Your task to perform on an android device: open chrome and create a bookmark for the current page Image 0: 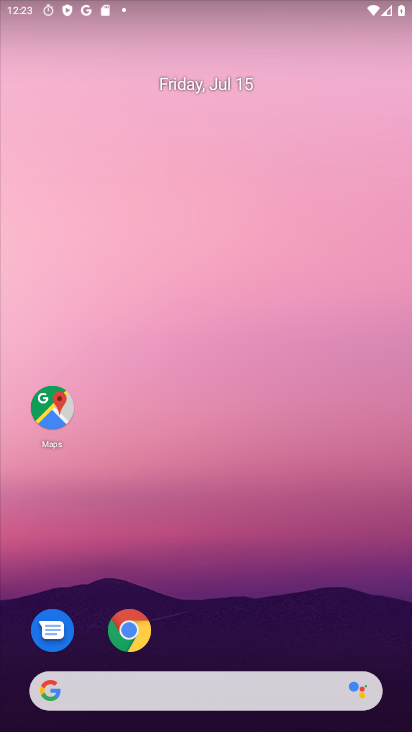
Step 0: drag from (188, 607) to (267, 40)
Your task to perform on an android device: open chrome and create a bookmark for the current page Image 1: 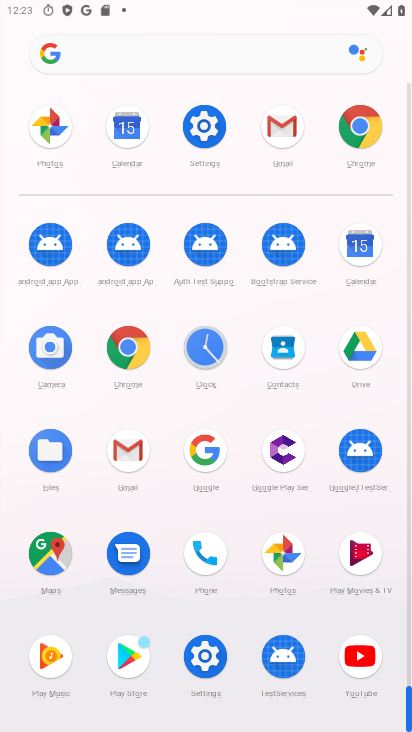
Step 1: click (131, 345)
Your task to perform on an android device: open chrome and create a bookmark for the current page Image 2: 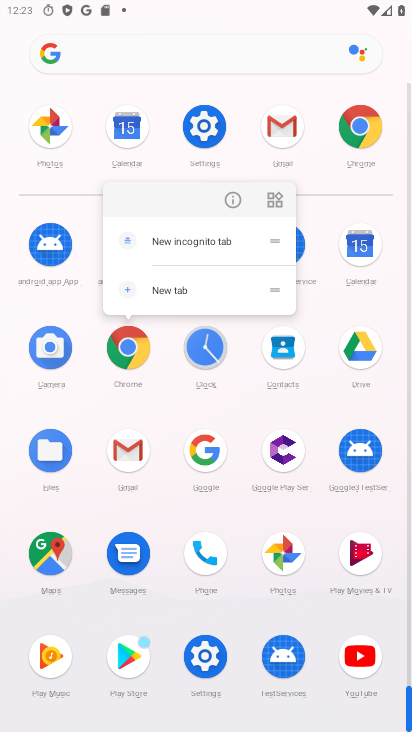
Step 2: click (229, 194)
Your task to perform on an android device: open chrome and create a bookmark for the current page Image 3: 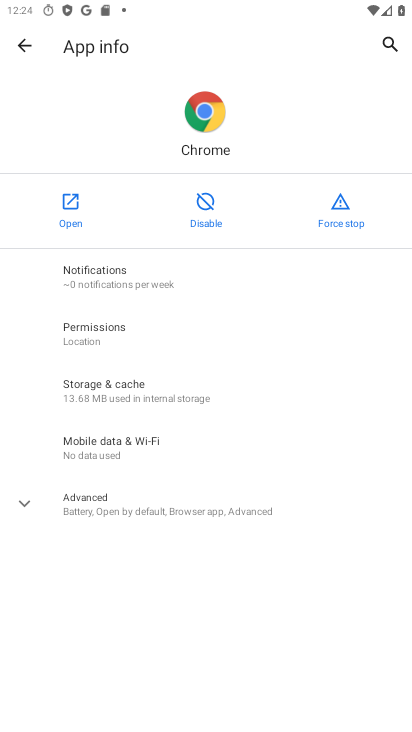
Step 3: click (77, 198)
Your task to perform on an android device: open chrome and create a bookmark for the current page Image 4: 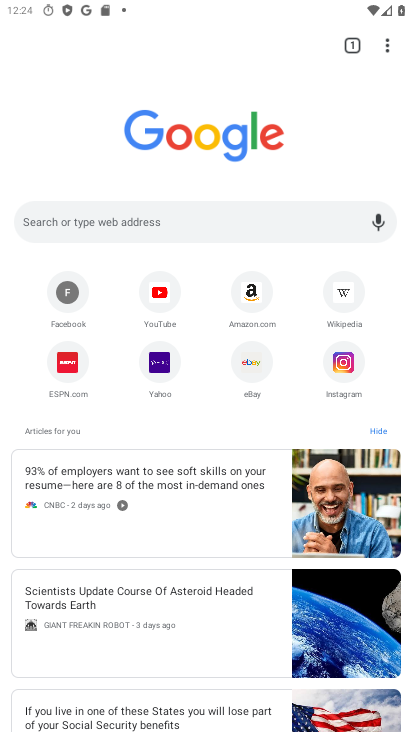
Step 4: click (390, 45)
Your task to perform on an android device: open chrome and create a bookmark for the current page Image 5: 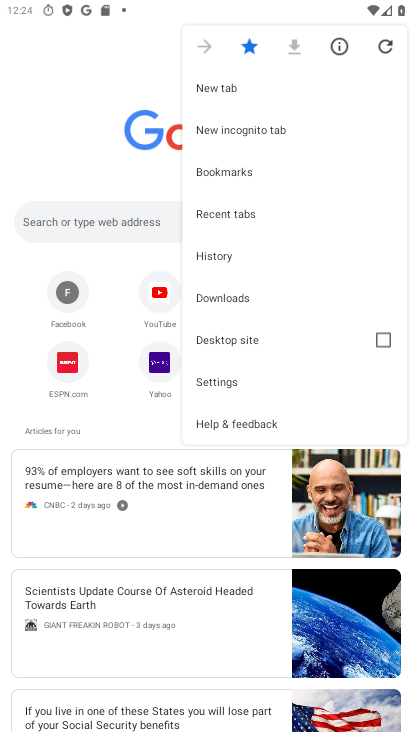
Step 5: click (129, 165)
Your task to perform on an android device: open chrome and create a bookmark for the current page Image 6: 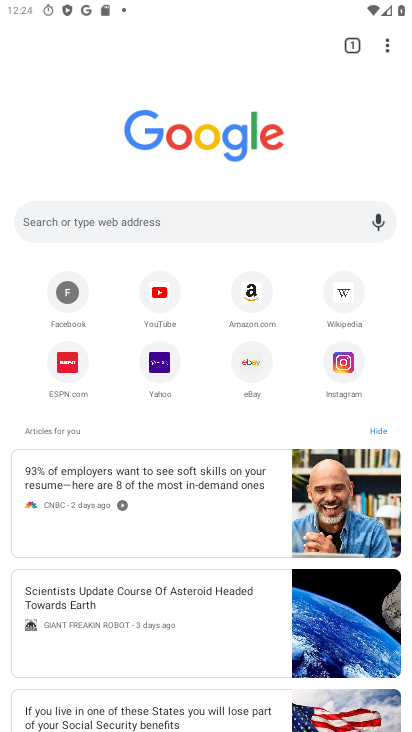
Step 6: task complete